Your task to perform on an android device: Is it going to rain today? Image 0: 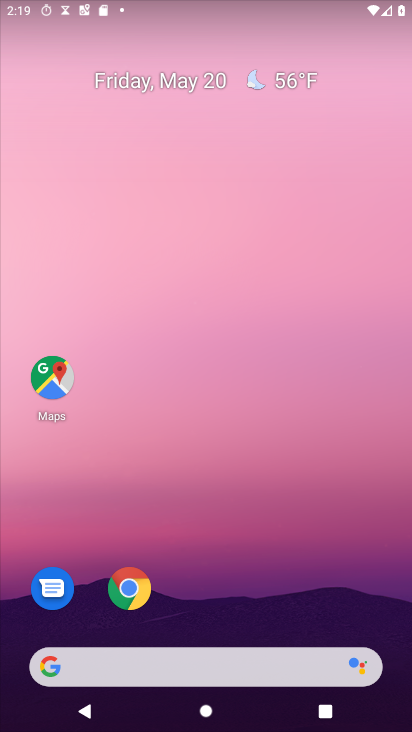
Step 0: click (150, 661)
Your task to perform on an android device: Is it going to rain today? Image 1: 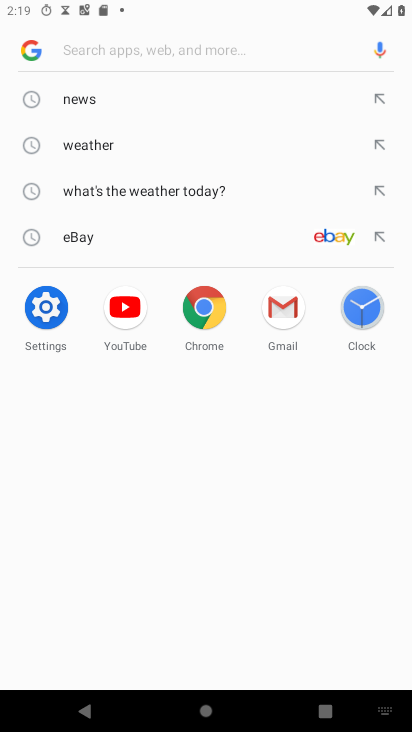
Step 1: click (96, 141)
Your task to perform on an android device: Is it going to rain today? Image 2: 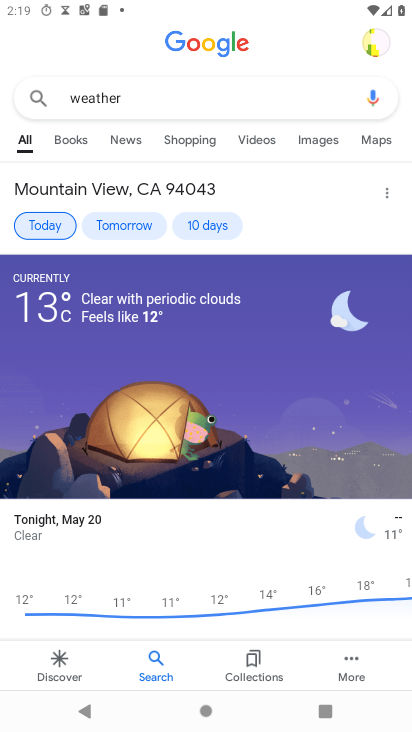
Step 2: task complete